Your task to perform on an android device: turn vacation reply on in the gmail app Image 0: 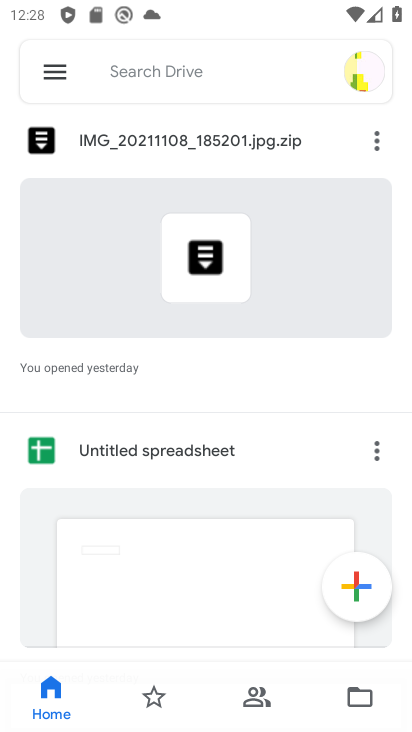
Step 0: press home button
Your task to perform on an android device: turn vacation reply on in the gmail app Image 1: 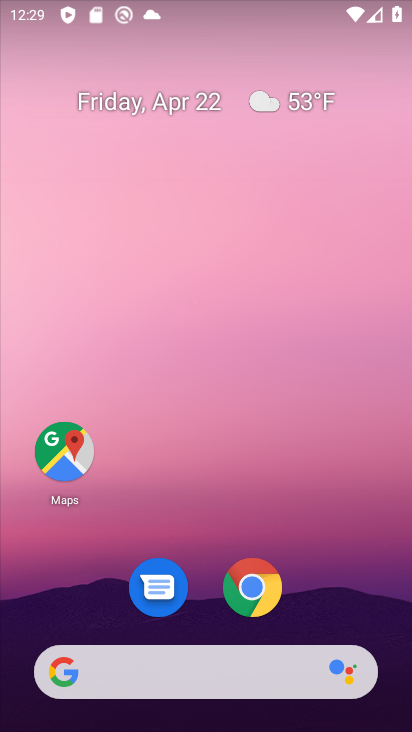
Step 1: drag from (376, 538) to (407, 522)
Your task to perform on an android device: turn vacation reply on in the gmail app Image 2: 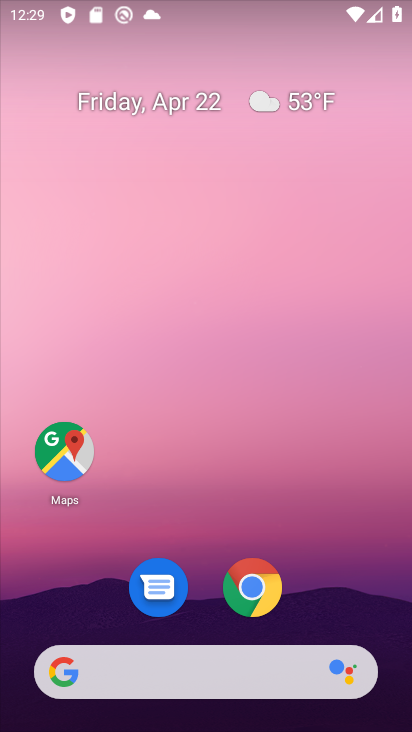
Step 2: drag from (333, 543) to (294, 244)
Your task to perform on an android device: turn vacation reply on in the gmail app Image 3: 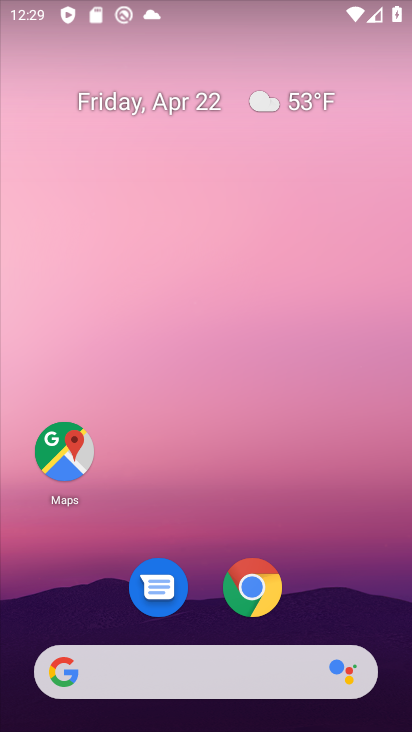
Step 3: drag from (343, 563) to (348, 94)
Your task to perform on an android device: turn vacation reply on in the gmail app Image 4: 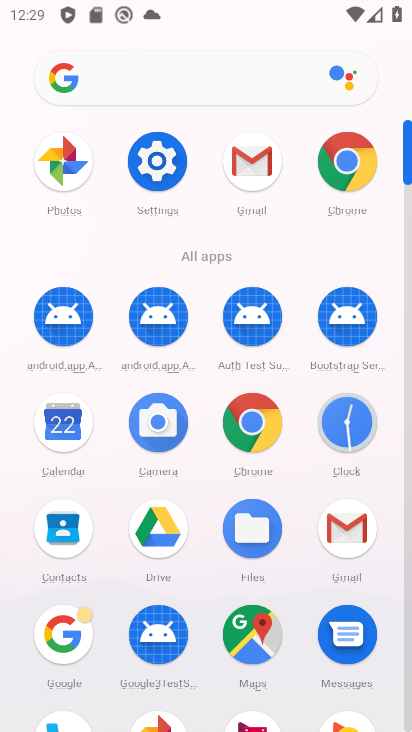
Step 4: click (349, 534)
Your task to perform on an android device: turn vacation reply on in the gmail app Image 5: 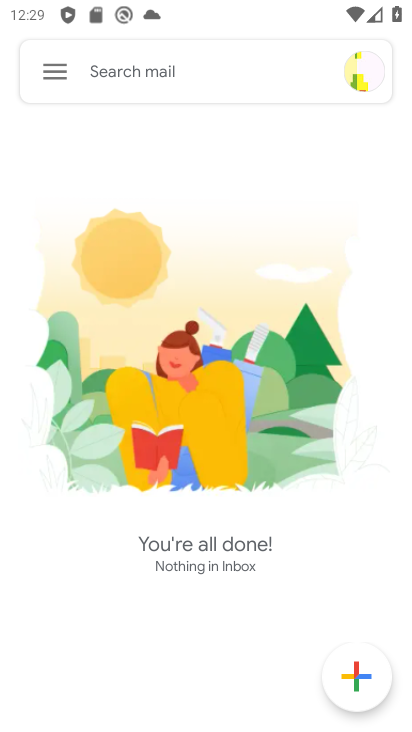
Step 5: click (50, 68)
Your task to perform on an android device: turn vacation reply on in the gmail app Image 6: 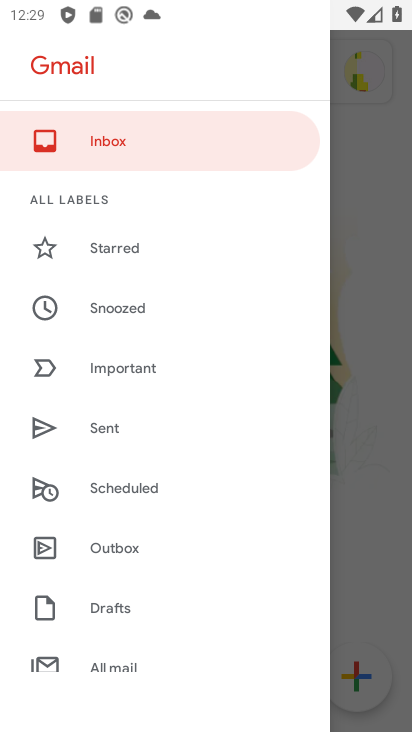
Step 6: drag from (215, 588) to (263, 159)
Your task to perform on an android device: turn vacation reply on in the gmail app Image 7: 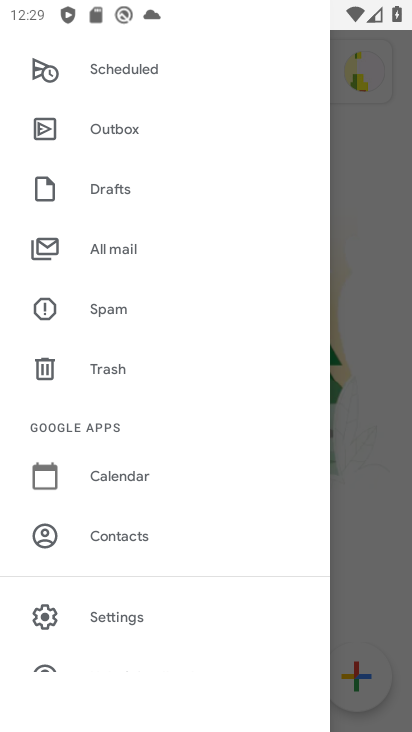
Step 7: click (135, 609)
Your task to perform on an android device: turn vacation reply on in the gmail app Image 8: 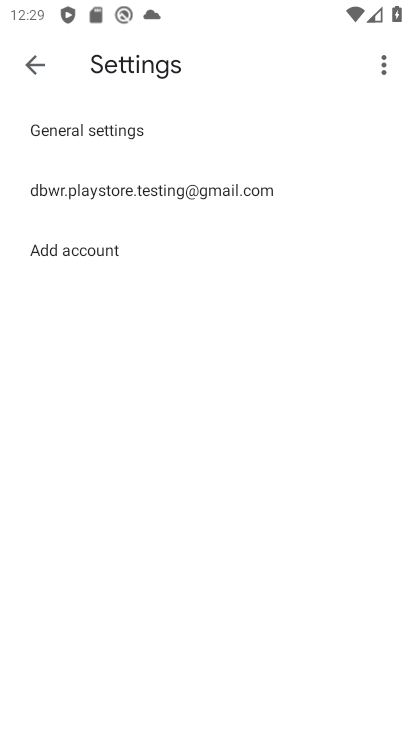
Step 8: click (144, 186)
Your task to perform on an android device: turn vacation reply on in the gmail app Image 9: 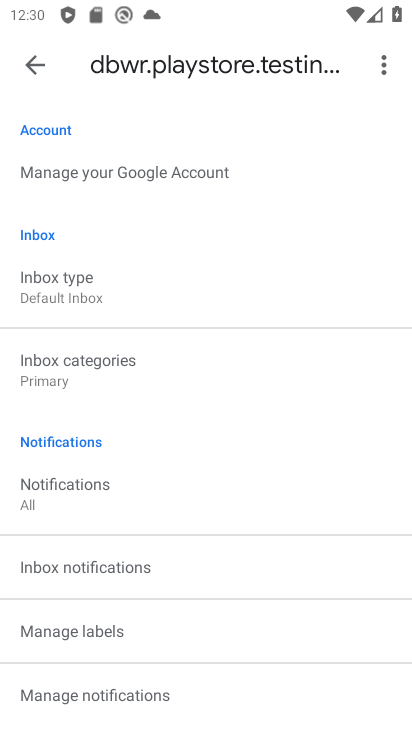
Step 9: drag from (267, 618) to (304, 160)
Your task to perform on an android device: turn vacation reply on in the gmail app Image 10: 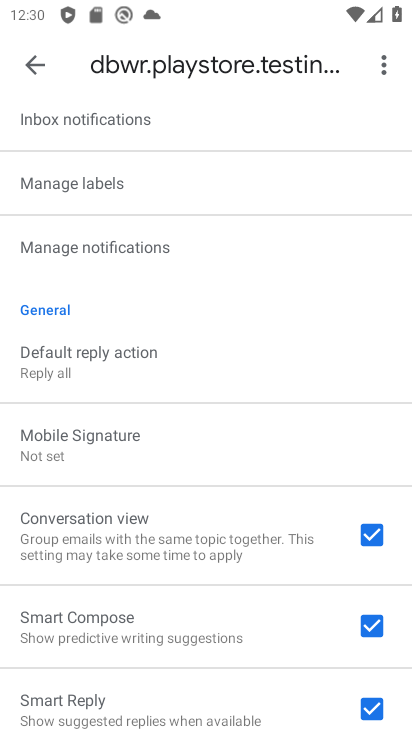
Step 10: drag from (222, 642) to (266, 258)
Your task to perform on an android device: turn vacation reply on in the gmail app Image 11: 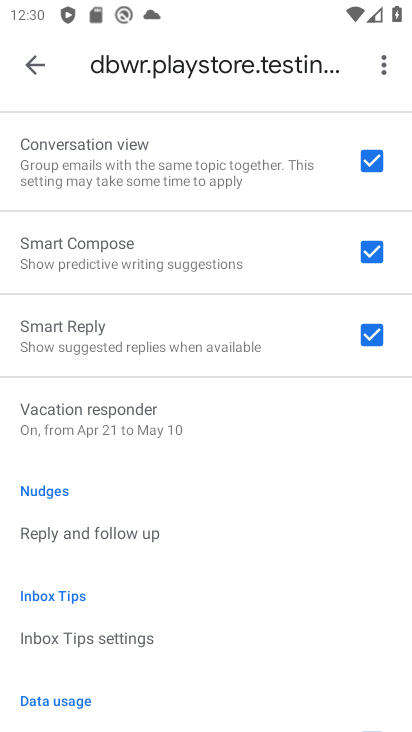
Step 11: click (86, 413)
Your task to perform on an android device: turn vacation reply on in the gmail app Image 12: 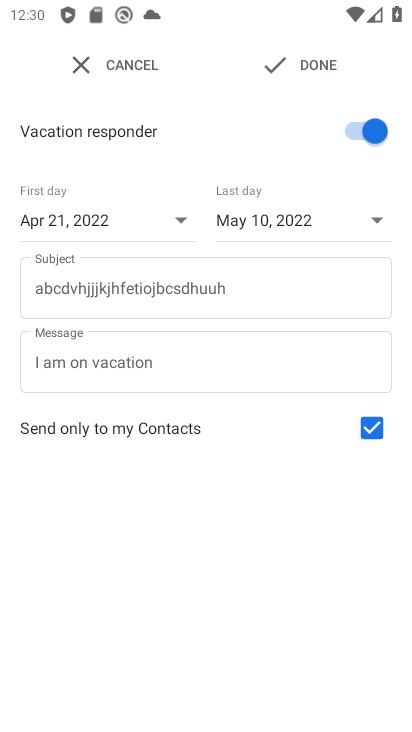
Step 12: click (290, 69)
Your task to perform on an android device: turn vacation reply on in the gmail app Image 13: 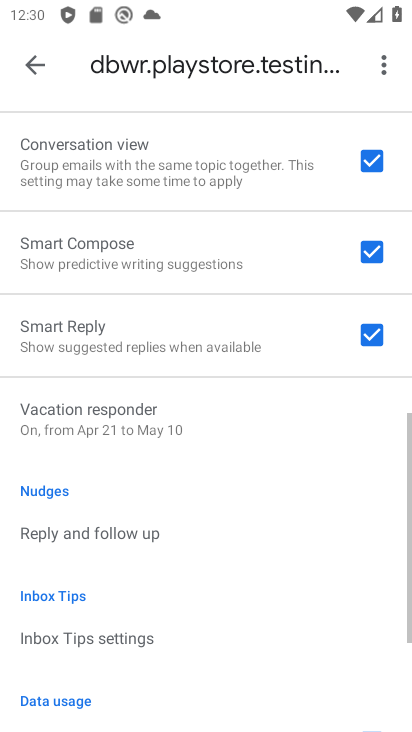
Step 13: task complete